Your task to perform on an android device: open a bookmark in the chrome app Image 0: 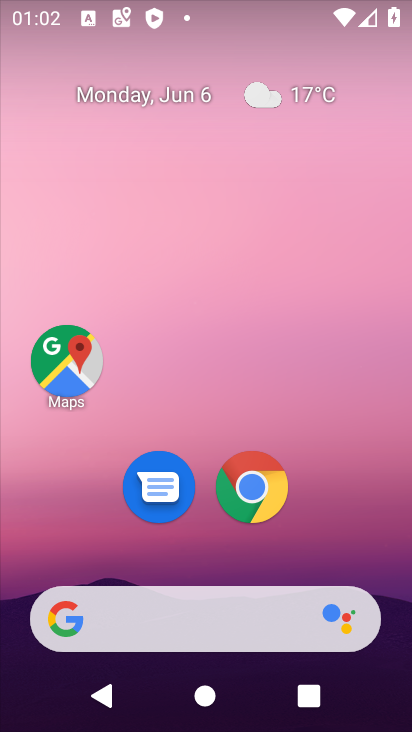
Step 0: click (254, 487)
Your task to perform on an android device: open a bookmark in the chrome app Image 1: 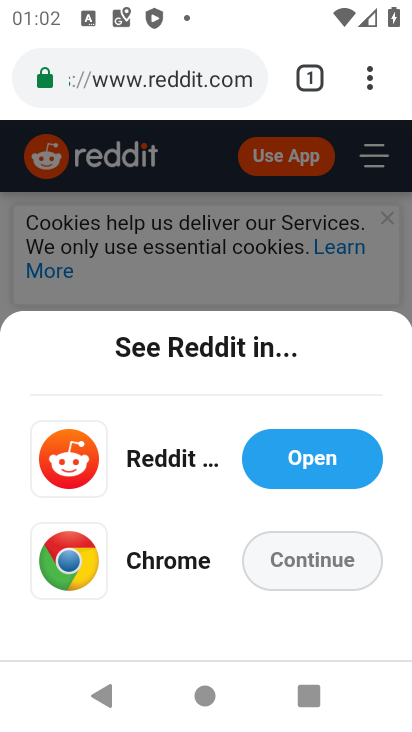
Step 1: click (365, 87)
Your task to perform on an android device: open a bookmark in the chrome app Image 2: 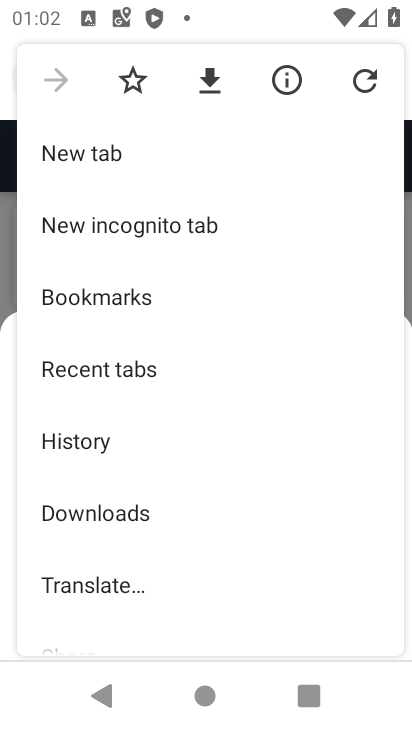
Step 2: click (86, 306)
Your task to perform on an android device: open a bookmark in the chrome app Image 3: 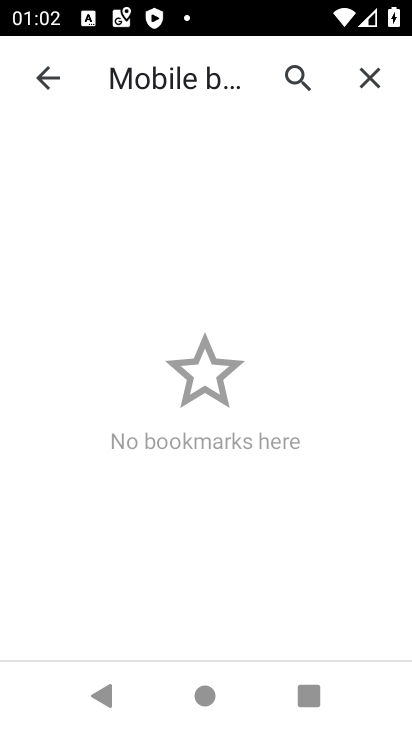
Step 3: task complete